Your task to perform on an android device: find snoozed emails in the gmail app Image 0: 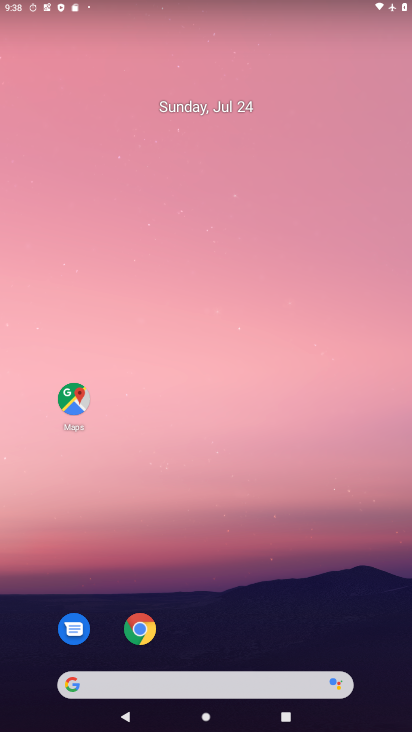
Step 0: drag from (187, 709) to (236, 304)
Your task to perform on an android device: find snoozed emails in the gmail app Image 1: 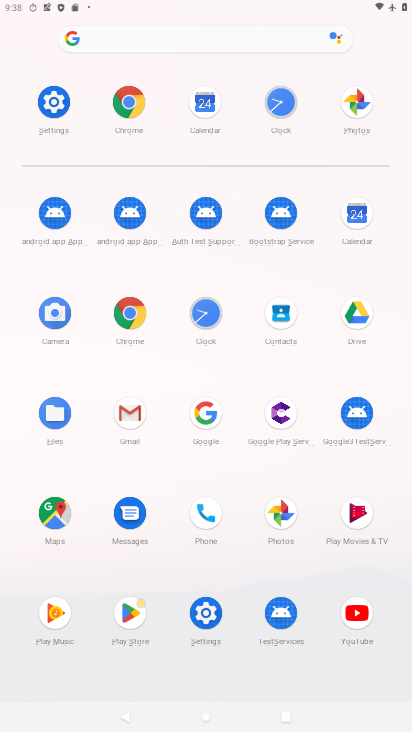
Step 1: click (139, 425)
Your task to perform on an android device: find snoozed emails in the gmail app Image 2: 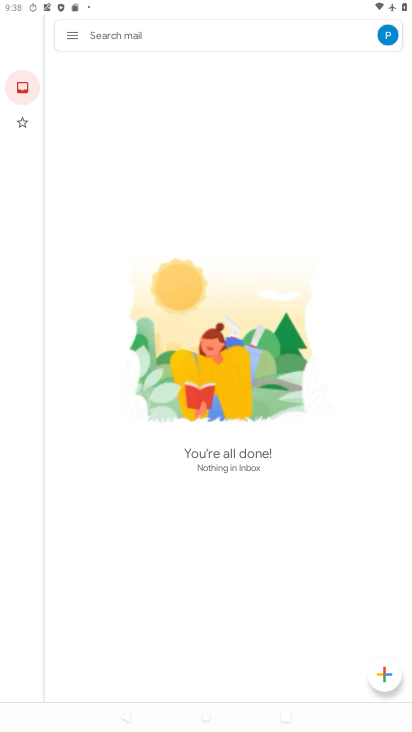
Step 2: click (70, 39)
Your task to perform on an android device: find snoozed emails in the gmail app Image 3: 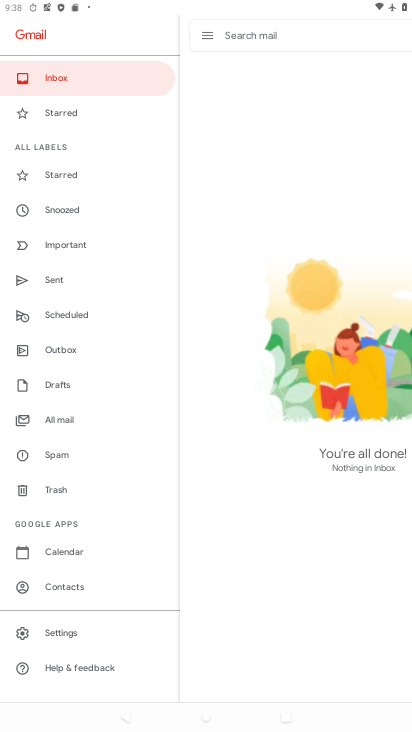
Step 3: click (80, 211)
Your task to perform on an android device: find snoozed emails in the gmail app Image 4: 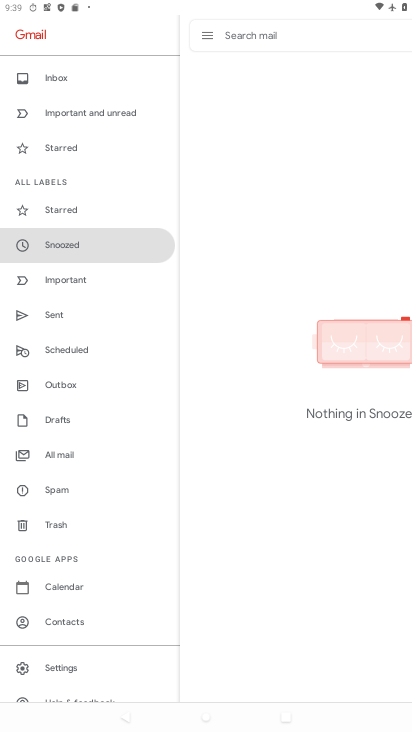
Step 4: task complete